Your task to perform on an android device: set an alarm Image 0: 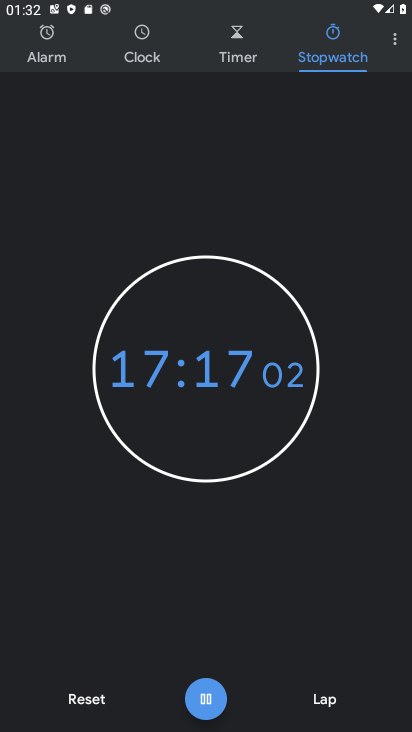
Step 0: click (52, 55)
Your task to perform on an android device: set an alarm Image 1: 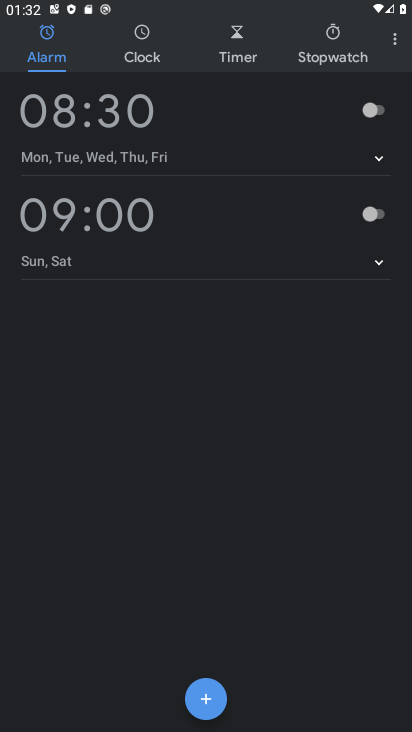
Step 1: click (207, 698)
Your task to perform on an android device: set an alarm Image 2: 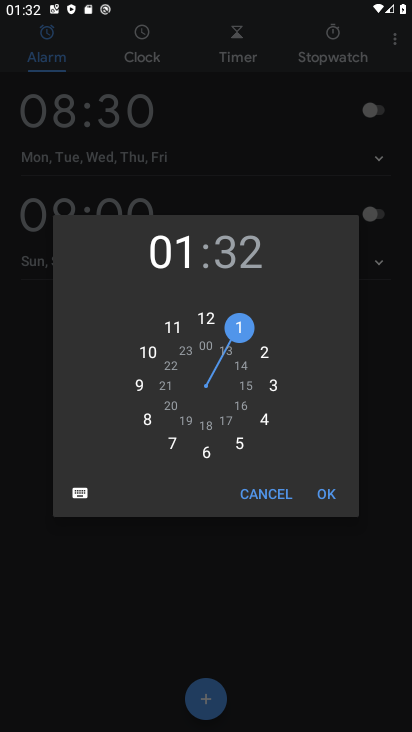
Step 2: click (203, 450)
Your task to perform on an android device: set an alarm Image 3: 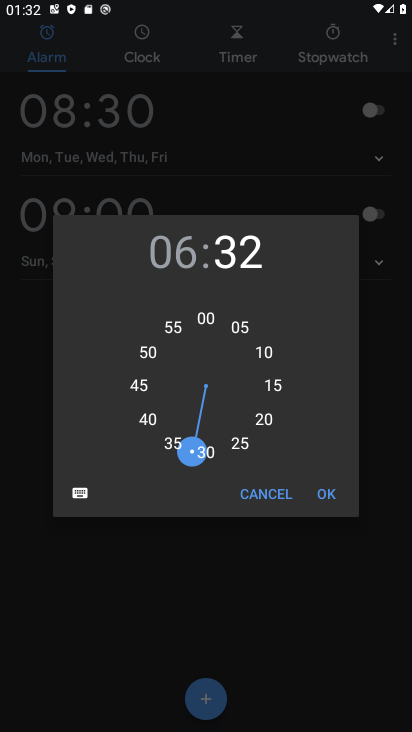
Step 3: click (323, 491)
Your task to perform on an android device: set an alarm Image 4: 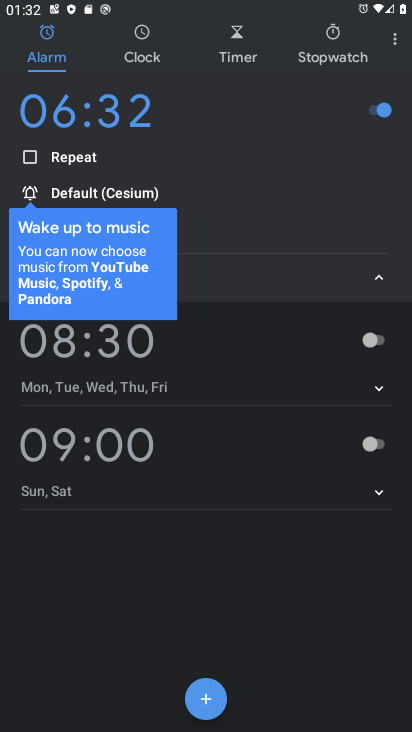
Step 4: task complete